Your task to perform on an android device: Open Youtube and go to "Your channel" Image 0: 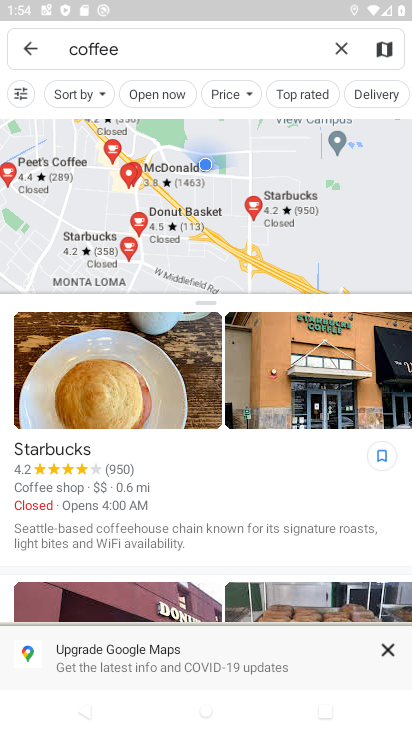
Step 0: press home button
Your task to perform on an android device: Open Youtube and go to "Your channel" Image 1: 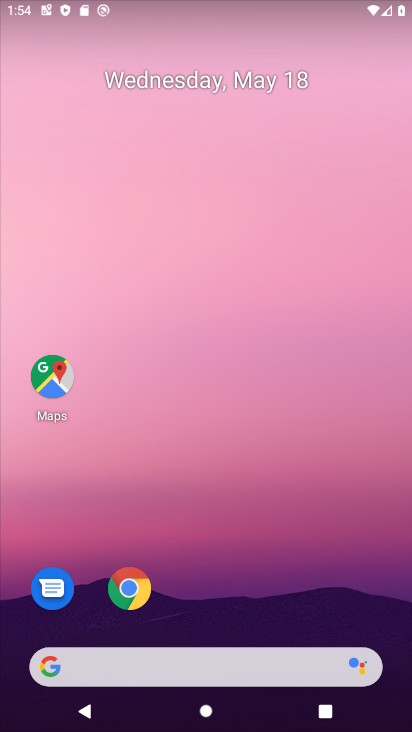
Step 1: drag from (348, 577) to (360, 127)
Your task to perform on an android device: Open Youtube and go to "Your channel" Image 2: 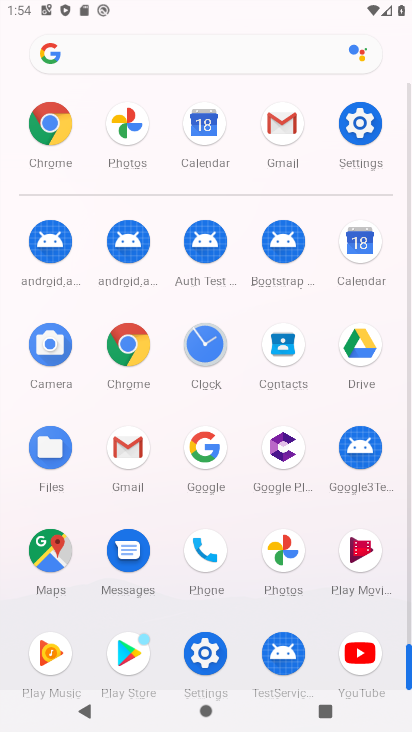
Step 2: click (40, 550)
Your task to perform on an android device: Open Youtube and go to "Your channel" Image 3: 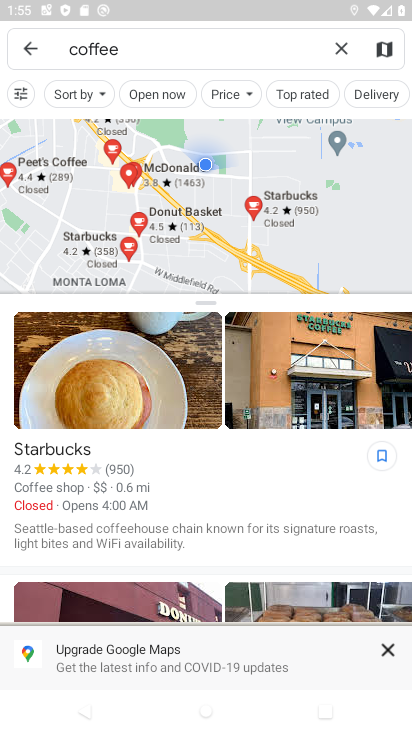
Step 3: click (28, 40)
Your task to perform on an android device: Open Youtube and go to "Your channel" Image 4: 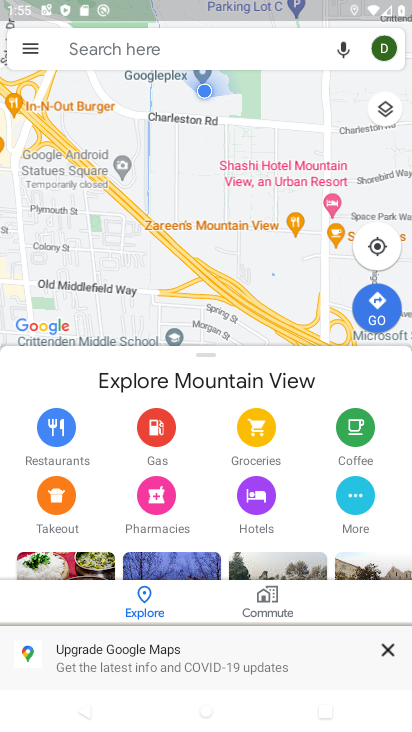
Step 4: click (29, 50)
Your task to perform on an android device: Open Youtube and go to "Your channel" Image 5: 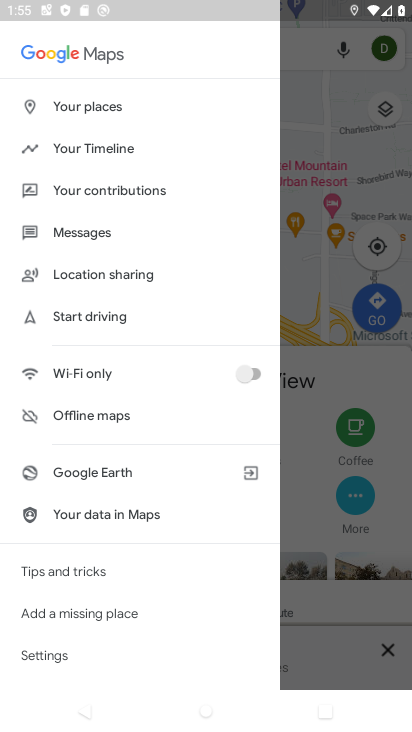
Step 5: drag from (201, 502) to (203, 322)
Your task to perform on an android device: Open Youtube and go to "Your channel" Image 6: 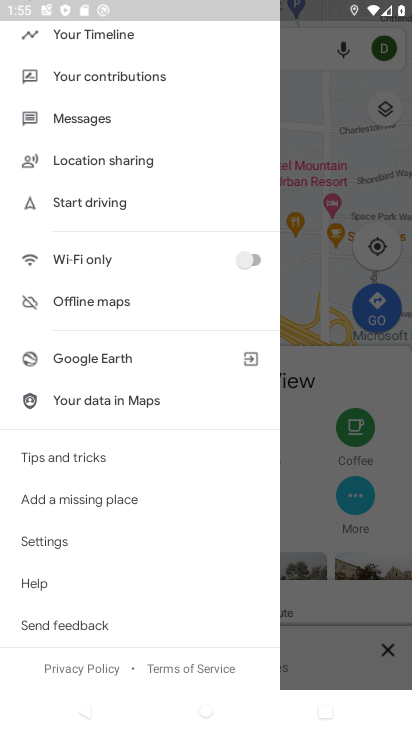
Step 6: drag from (180, 508) to (189, 342)
Your task to perform on an android device: Open Youtube and go to "Your channel" Image 7: 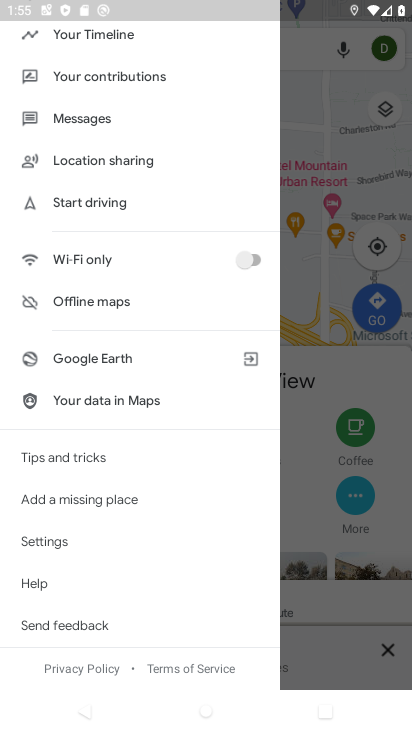
Step 7: drag from (197, 224) to (175, 419)
Your task to perform on an android device: Open Youtube and go to "Your channel" Image 8: 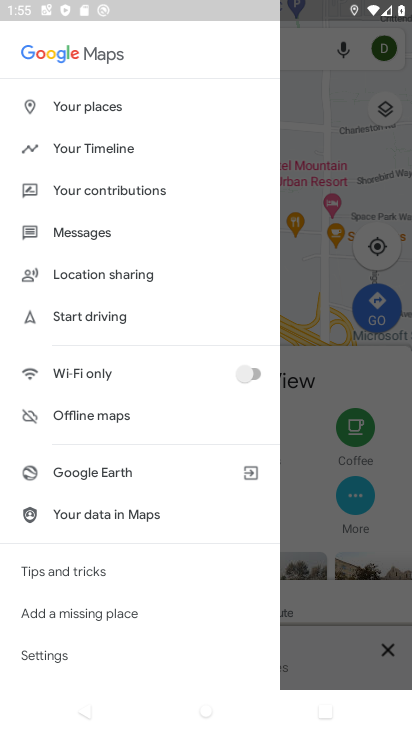
Step 8: drag from (188, 166) to (181, 388)
Your task to perform on an android device: Open Youtube and go to "Your channel" Image 9: 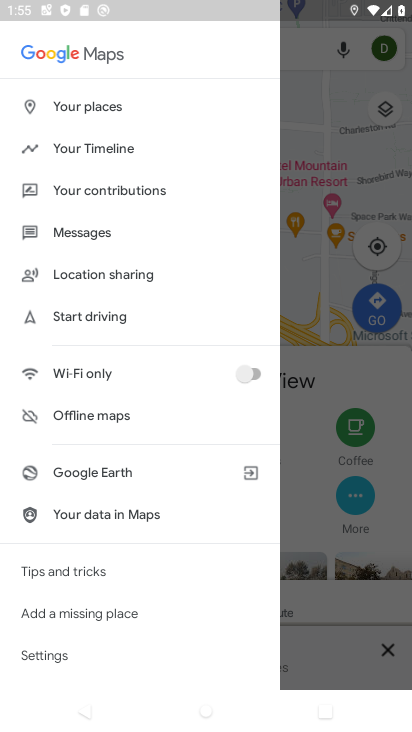
Step 9: press home button
Your task to perform on an android device: Open Youtube and go to "Your channel" Image 10: 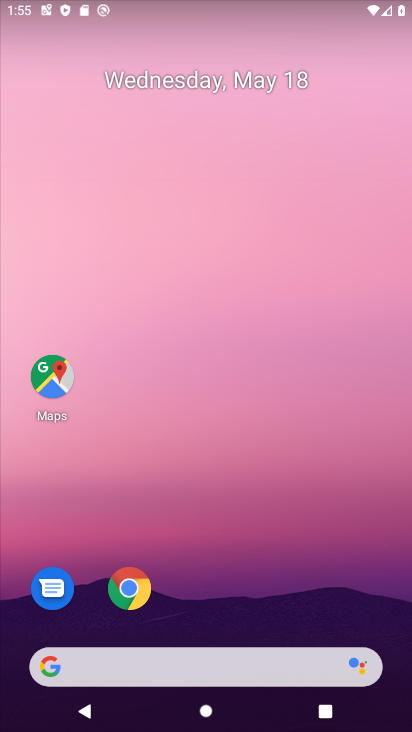
Step 10: drag from (350, 574) to (335, 178)
Your task to perform on an android device: Open Youtube and go to "Your channel" Image 11: 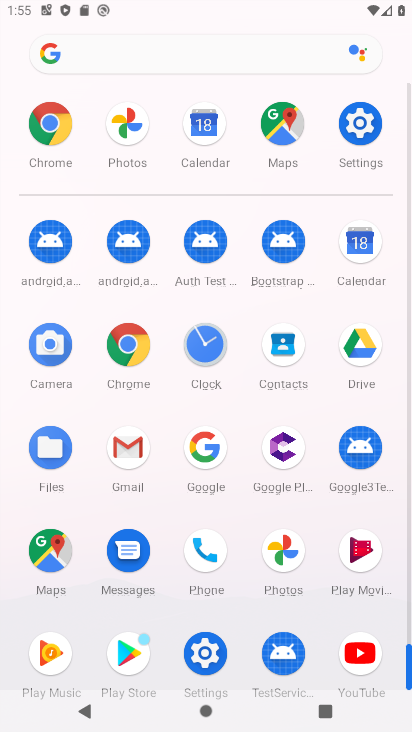
Step 11: click (352, 660)
Your task to perform on an android device: Open Youtube and go to "Your channel" Image 12: 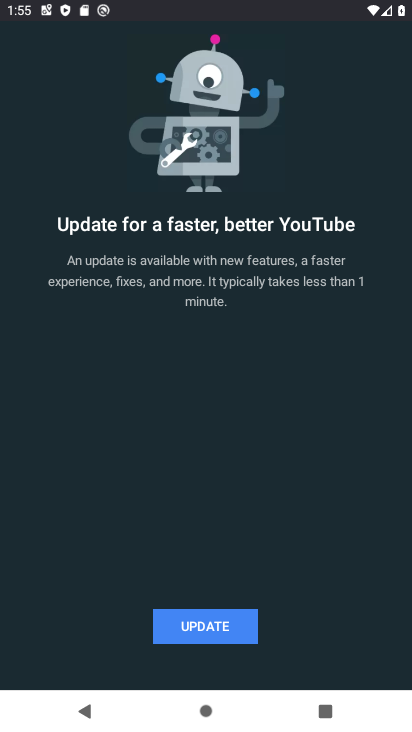
Step 12: click (212, 632)
Your task to perform on an android device: Open Youtube and go to "Your channel" Image 13: 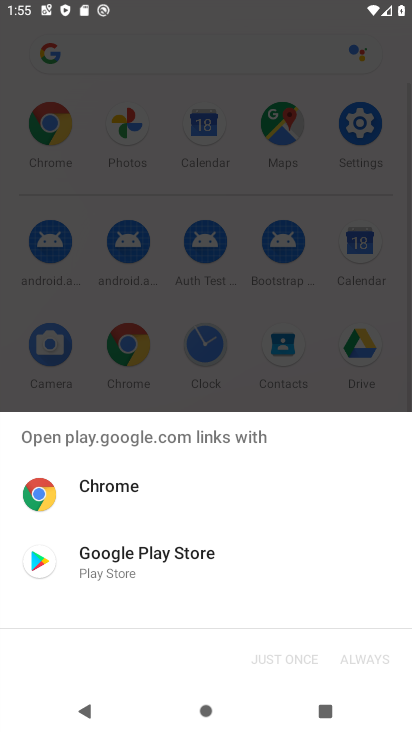
Step 13: click (168, 571)
Your task to perform on an android device: Open Youtube and go to "Your channel" Image 14: 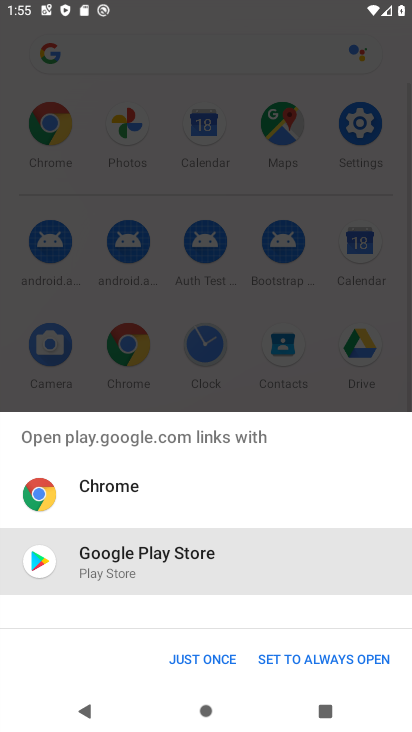
Step 14: click (202, 651)
Your task to perform on an android device: Open Youtube and go to "Your channel" Image 15: 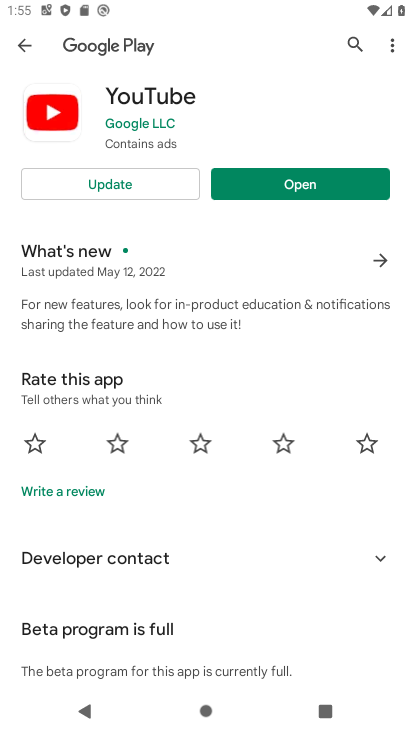
Step 15: click (141, 195)
Your task to perform on an android device: Open Youtube and go to "Your channel" Image 16: 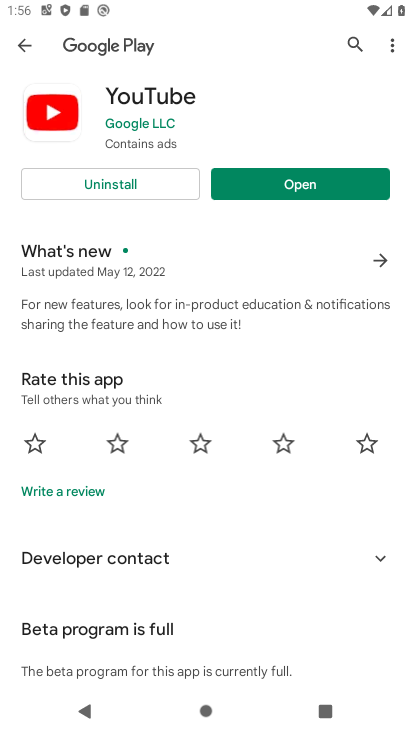
Step 16: click (315, 185)
Your task to perform on an android device: Open Youtube and go to "Your channel" Image 17: 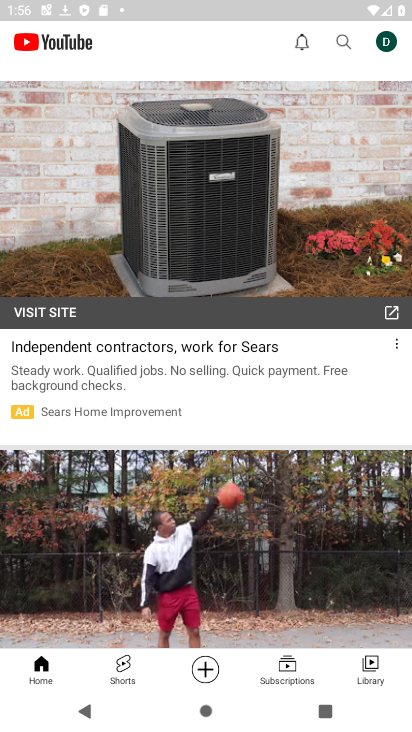
Step 17: click (390, 40)
Your task to perform on an android device: Open Youtube and go to "Your channel" Image 18: 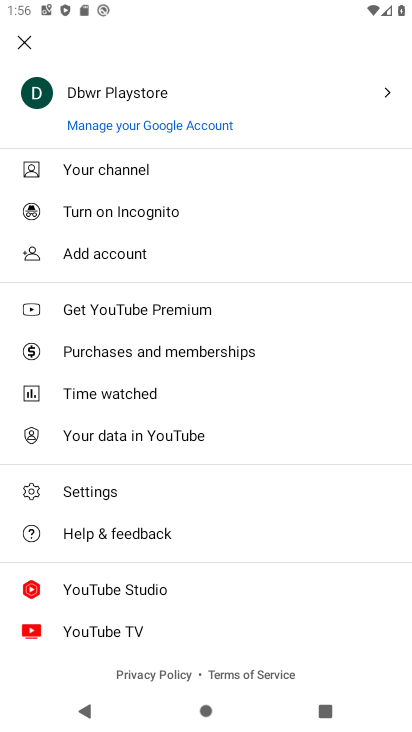
Step 18: drag from (298, 563) to (291, 397)
Your task to perform on an android device: Open Youtube and go to "Your channel" Image 19: 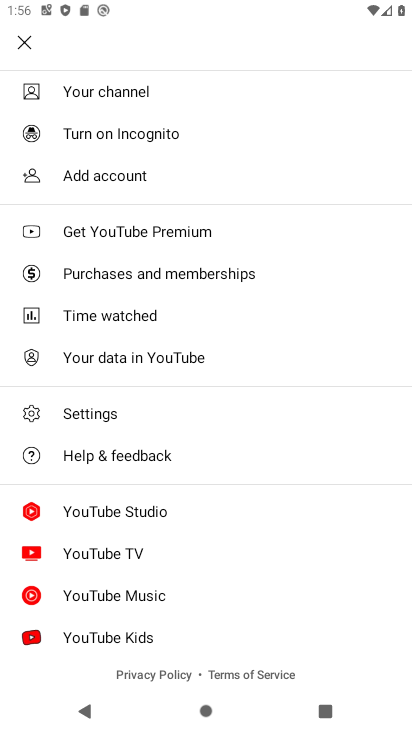
Step 19: drag from (307, 245) to (297, 454)
Your task to perform on an android device: Open Youtube and go to "Your channel" Image 20: 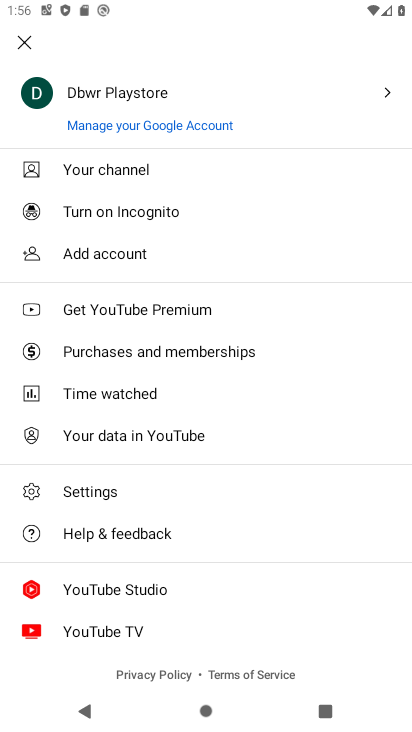
Step 20: click (133, 173)
Your task to perform on an android device: Open Youtube and go to "Your channel" Image 21: 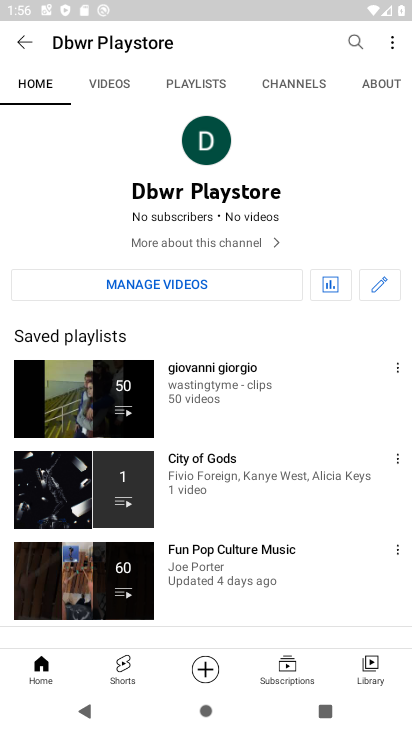
Step 21: task complete